Your task to perform on an android device: open device folders in google photos Image 0: 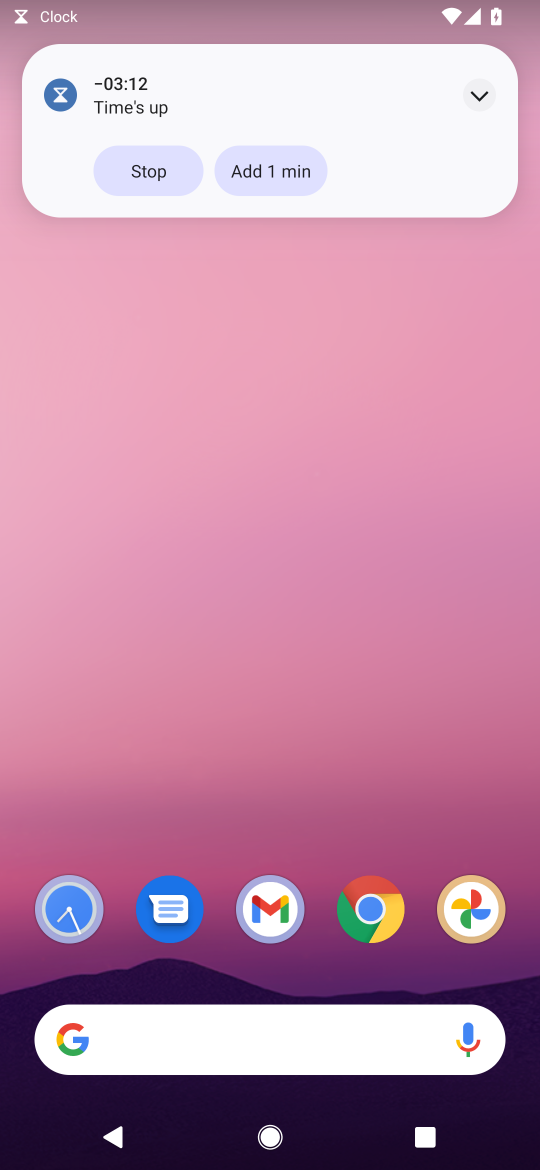
Step 0: click (275, 356)
Your task to perform on an android device: open device folders in google photos Image 1: 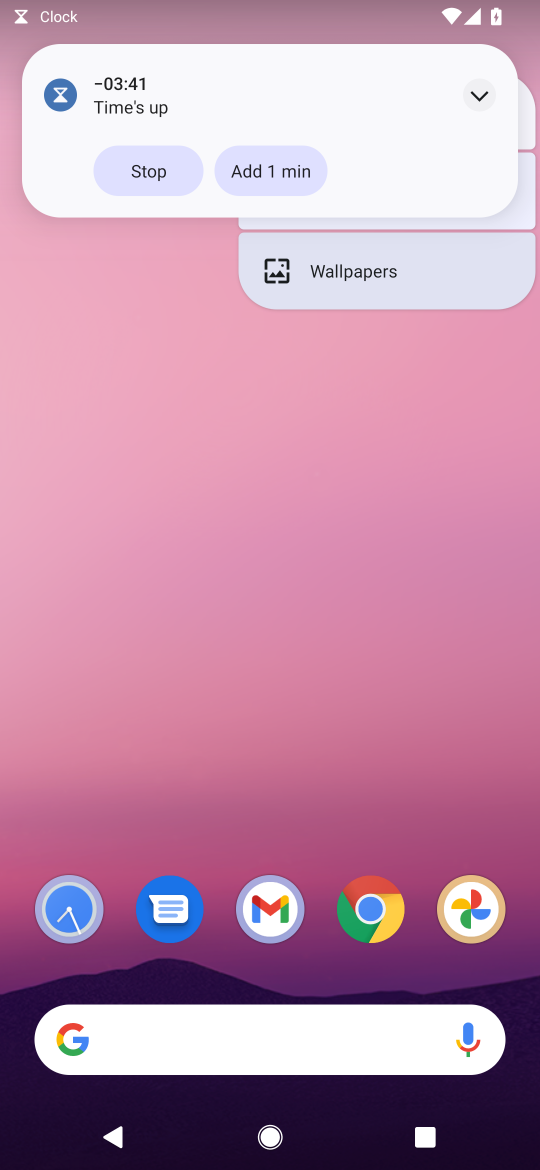
Step 1: drag from (311, 478) to (311, 328)
Your task to perform on an android device: open device folders in google photos Image 2: 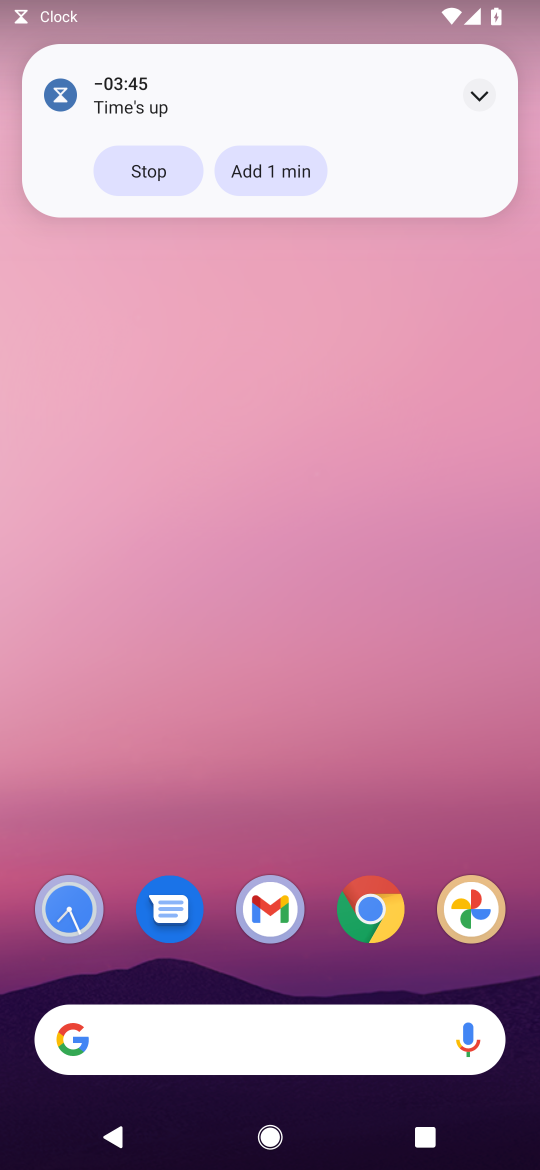
Step 2: click (138, 163)
Your task to perform on an android device: open device folders in google photos Image 3: 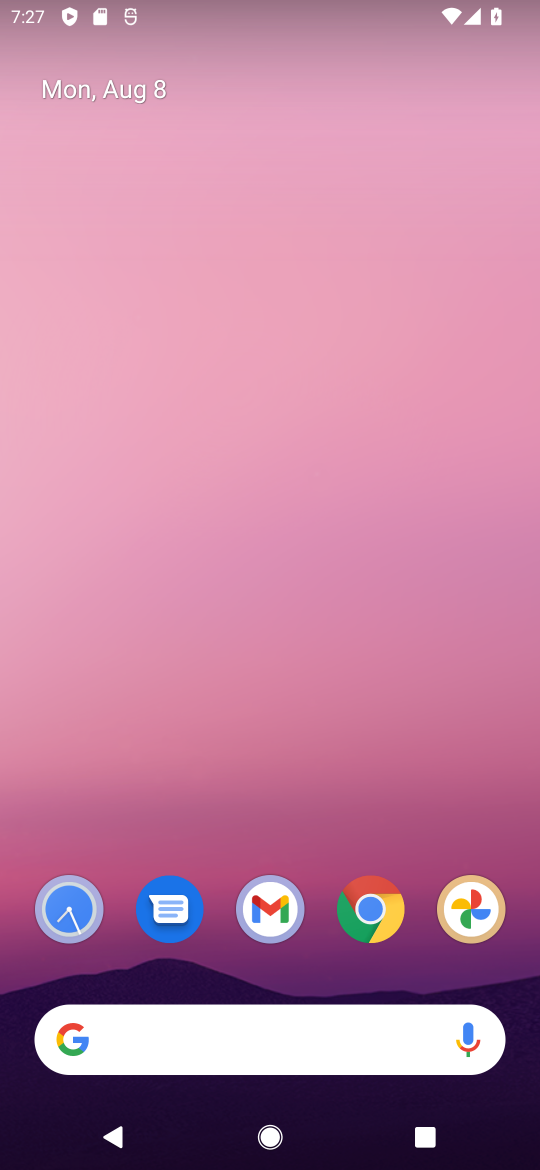
Step 3: drag from (181, 916) to (152, 25)
Your task to perform on an android device: open device folders in google photos Image 4: 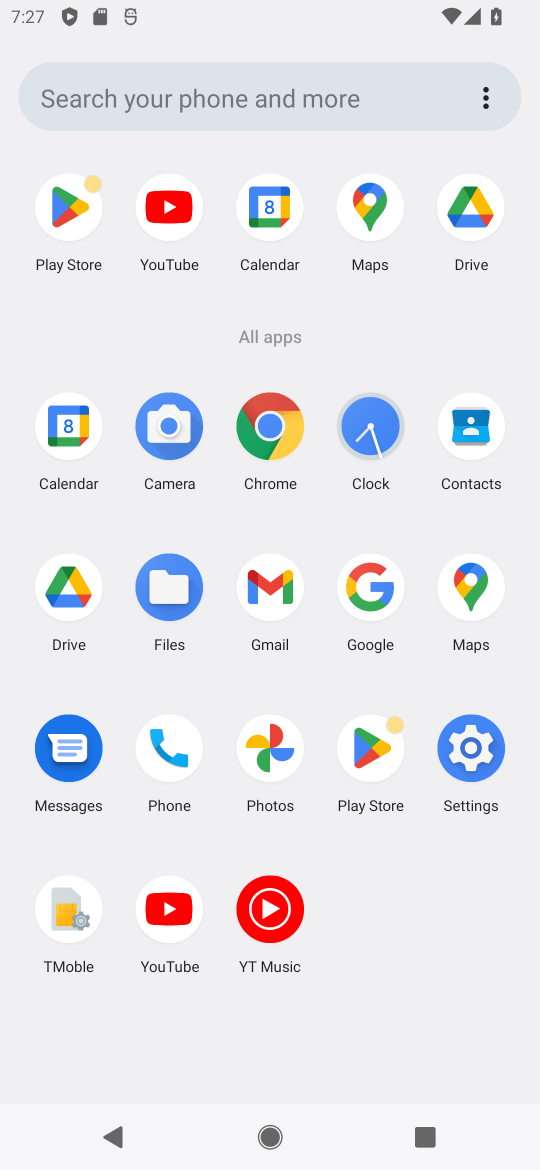
Step 4: click (274, 755)
Your task to perform on an android device: open device folders in google photos Image 5: 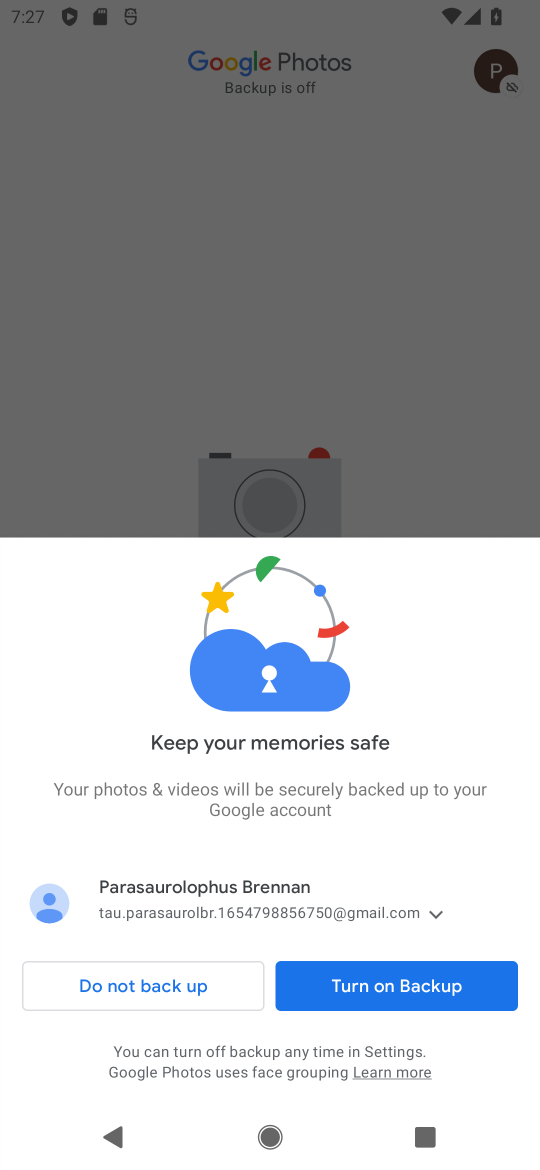
Step 5: click (398, 979)
Your task to perform on an android device: open device folders in google photos Image 6: 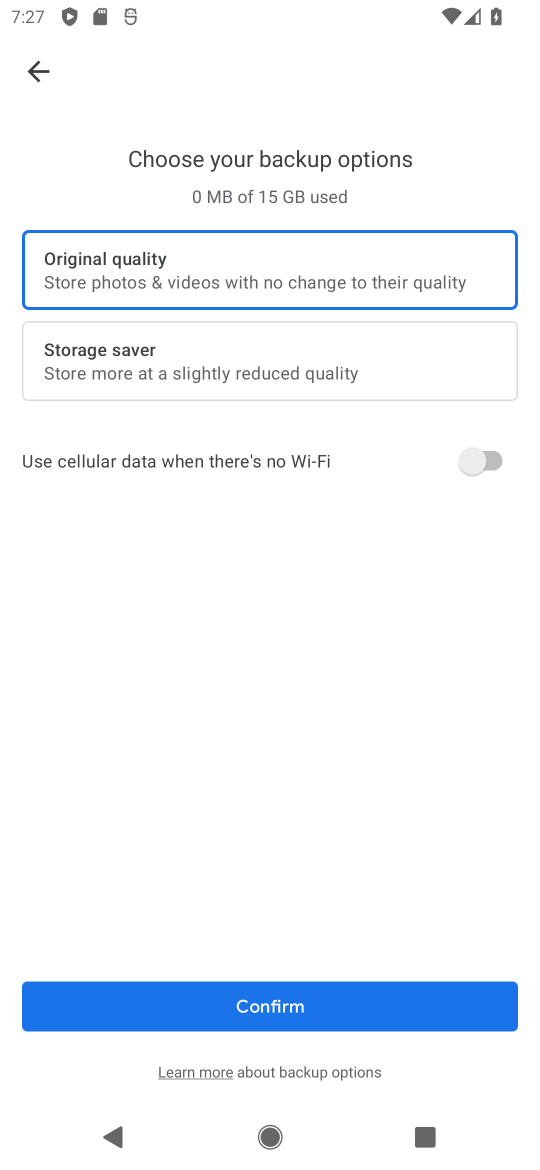
Step 6: click (308, 996)
Your task to perform on an android device: open device folders in google photos Image 7: 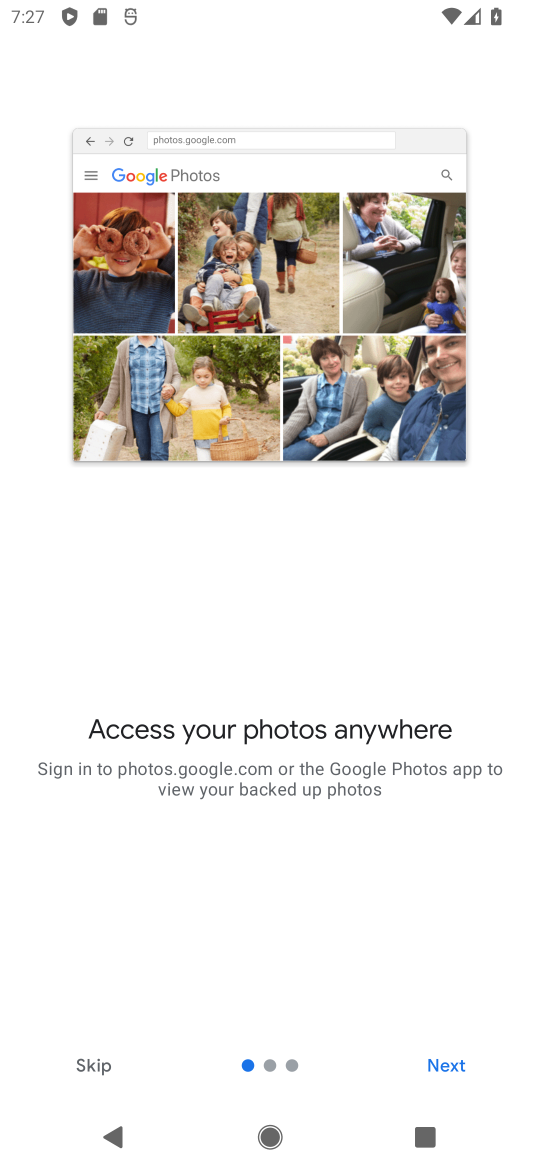
Step 7: click (441, 1072)
Your task to perform on an android device: open device folders in google photos Image 8: 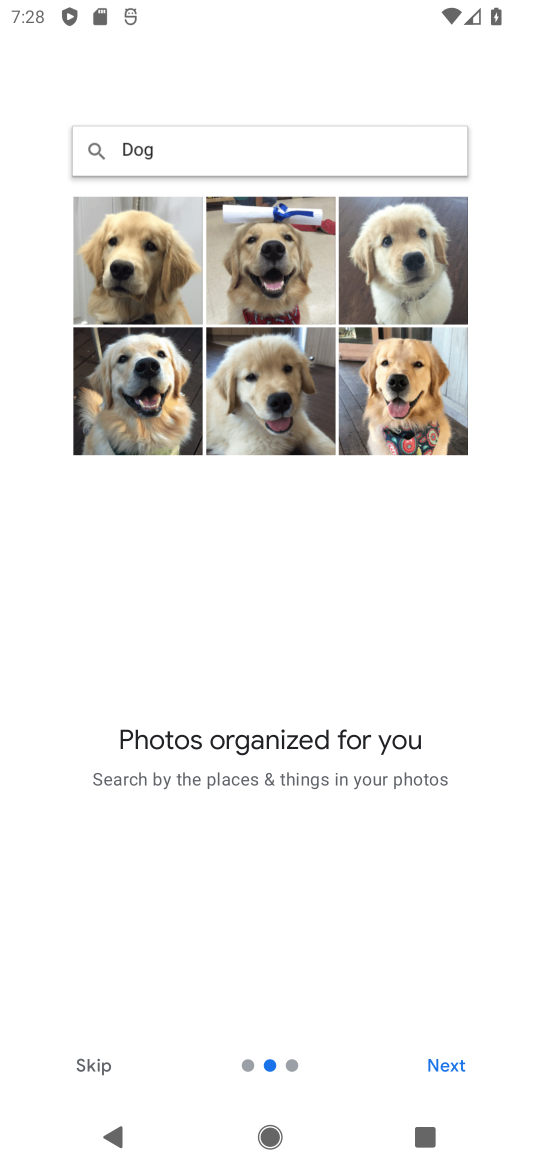
Step 8: click (432, 1064)
Your task to perform on an android device: open device folders in google photos Image 9: 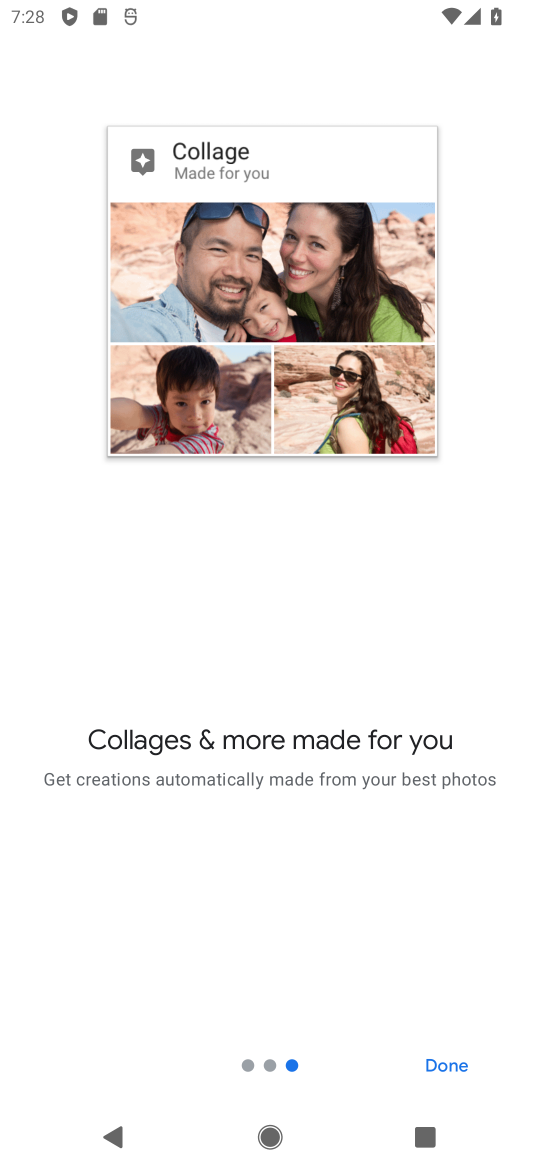
Step 9: click (427, 1070)
Your task to perform on an android device: open device folders in google photos Image 10: 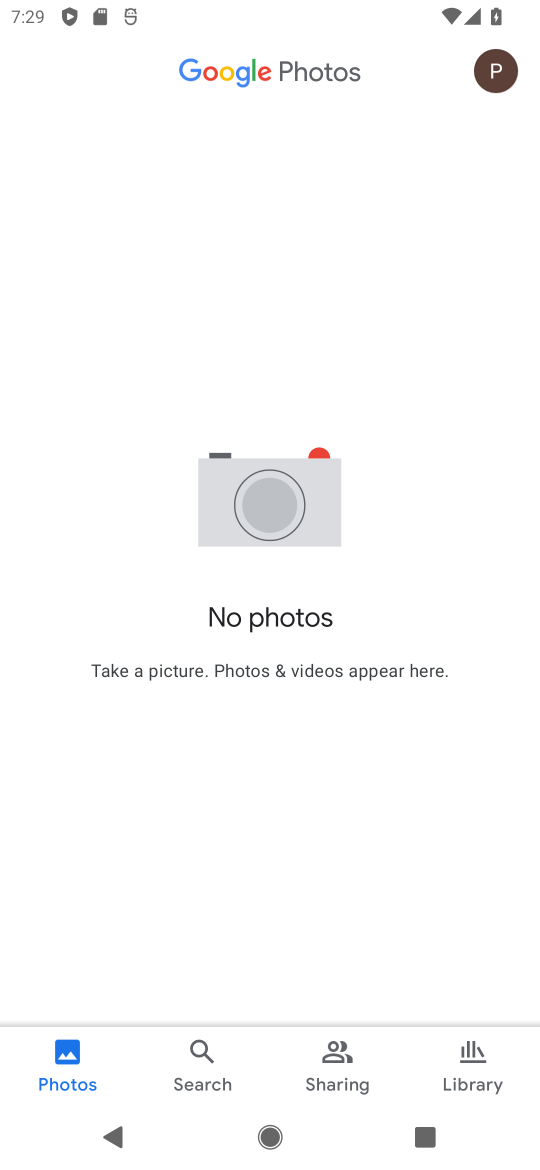
Step 10: click (506, 74)
Your task to perform on an android device: open device folders in google photos Image 11: 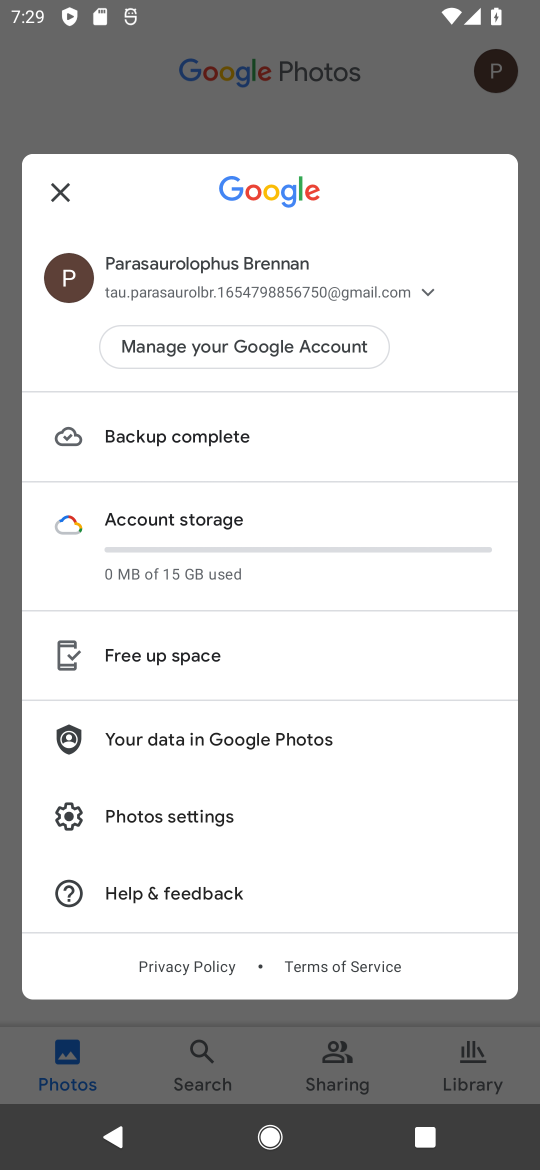
Step 11: task complete